Your task to perform on an android device: Open settings on Google Maps Image 0: 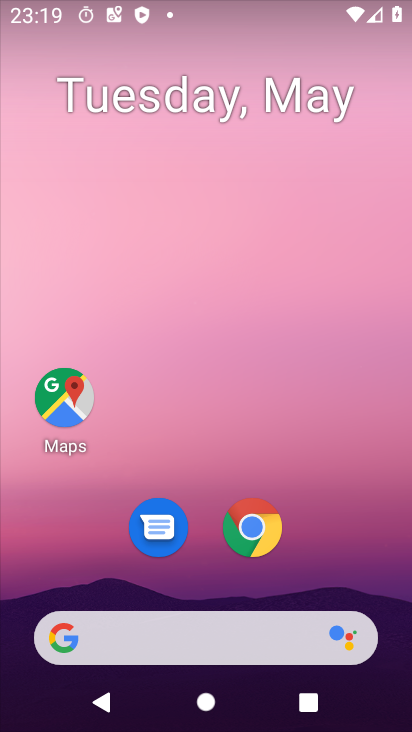
Step 0: click (240, 146)
Your task to perform on an android device: Open settings on Google Maps Image 1: 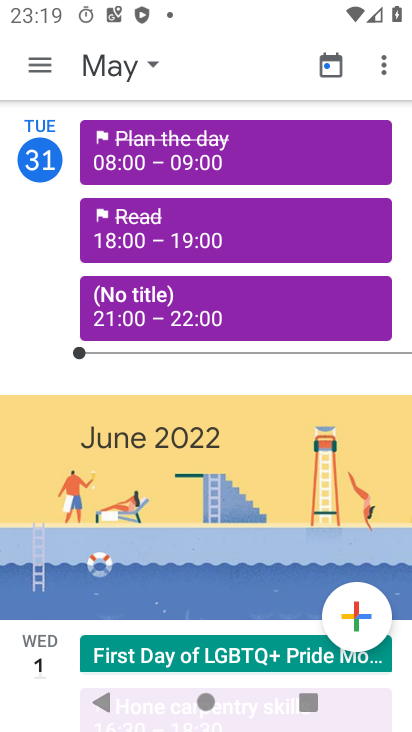
Step 1: drag from (191, 595) to (222, 274)
Your task to perform on an android device: Open settings on Google Maps Image 2: 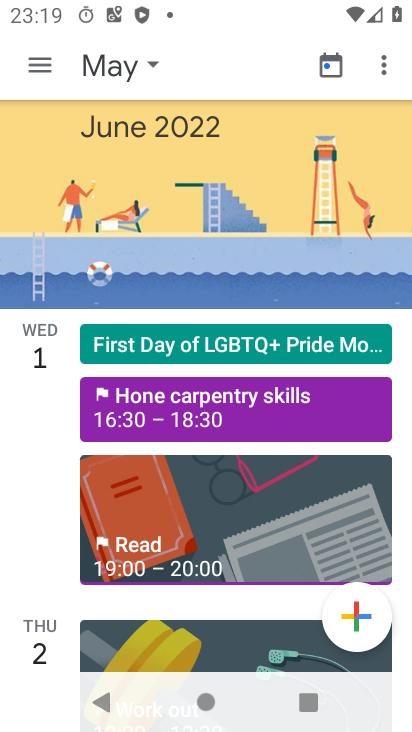
Step 2: press home button
Your task to perform on an android device: Open settings on Google Maps Image 3: 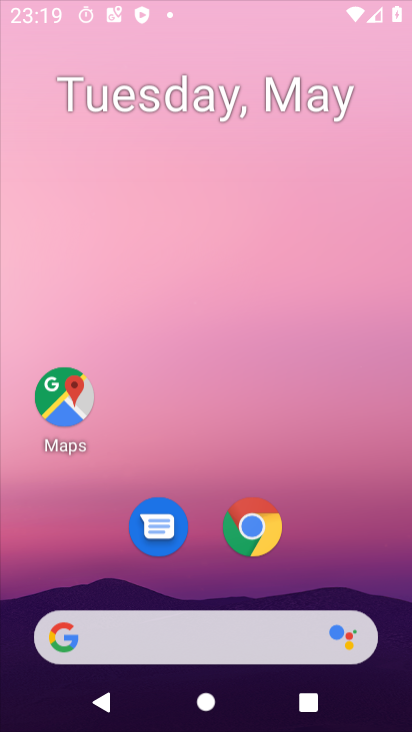
Step 3: drag from (237, 584) to (245, 128)
Your task to perform on an android device: Open settings on Google Maps Image 4: 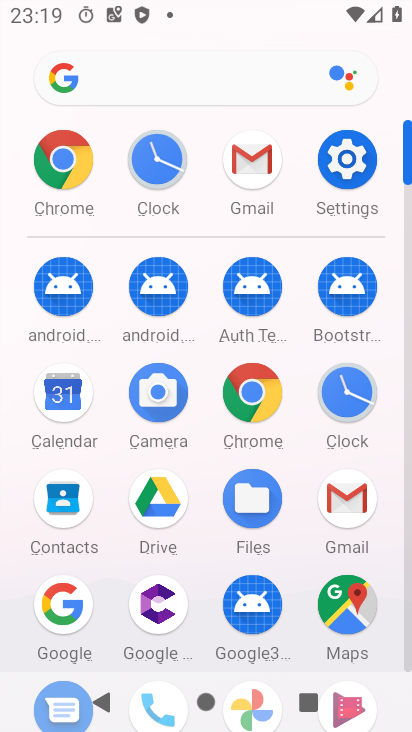
Step 4: click (344, 588)
Your task to perform on an android device: Open settings on Google Maps Image 5: 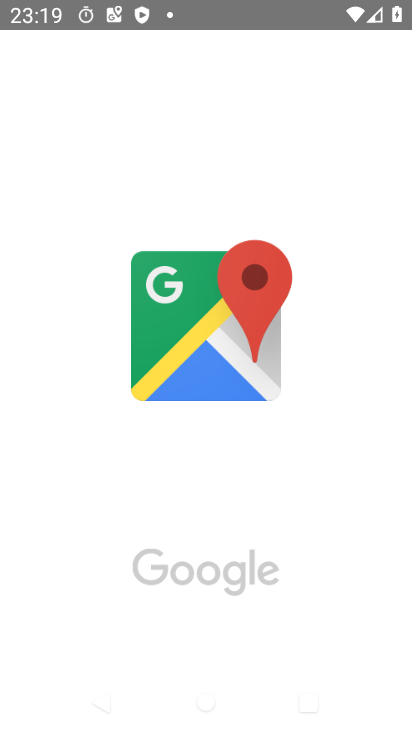
Step 5: drag from (181, 603) to (261, 255)
Your task to perform on an android device: Open settings on Google Maps Image 6: 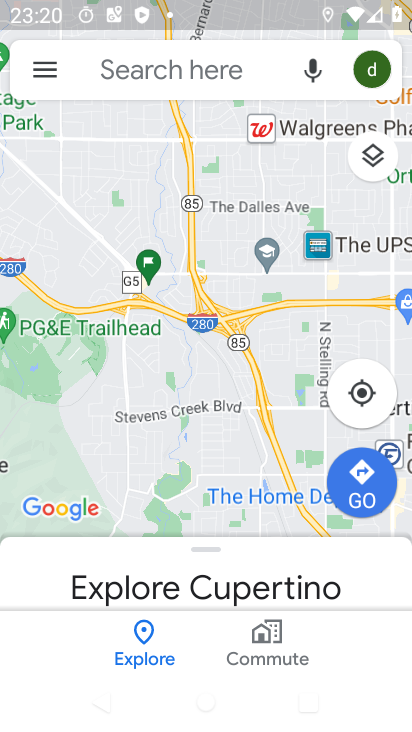
Step 6: drag from (215, 558) to (234, 81)
Your task to perform on an android device: Open settings on Google Maps Image 7: 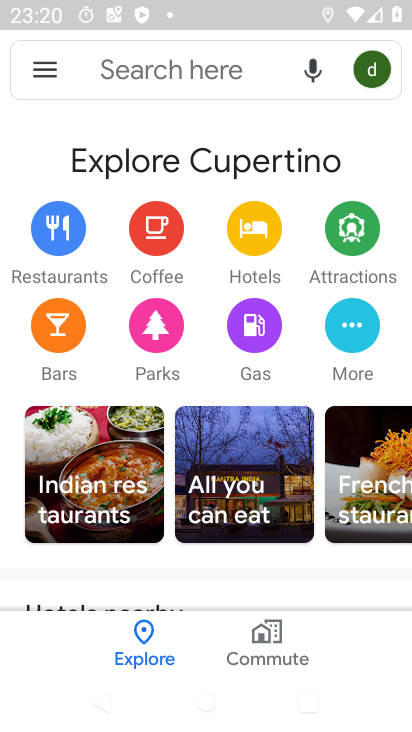
Step 7: drag from (241, 564) to (304, 170)
Your task to perform on an android device: Open settings on Google Maps Image 8: 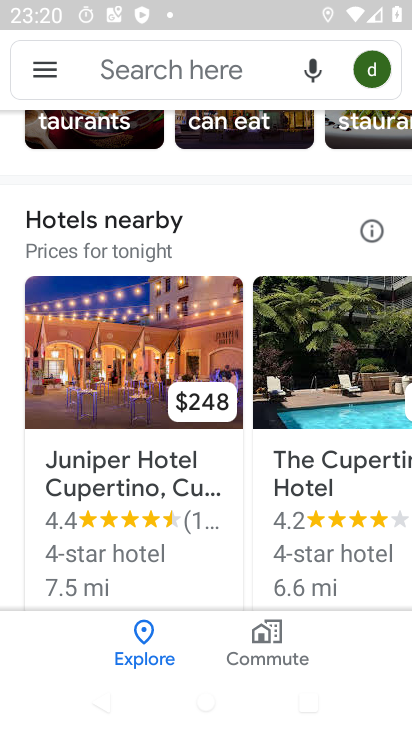
Step 8: drag from (246, 563) to (266, 197)
Your task to perform on an android device: Open settings on Google Maps Image 9: 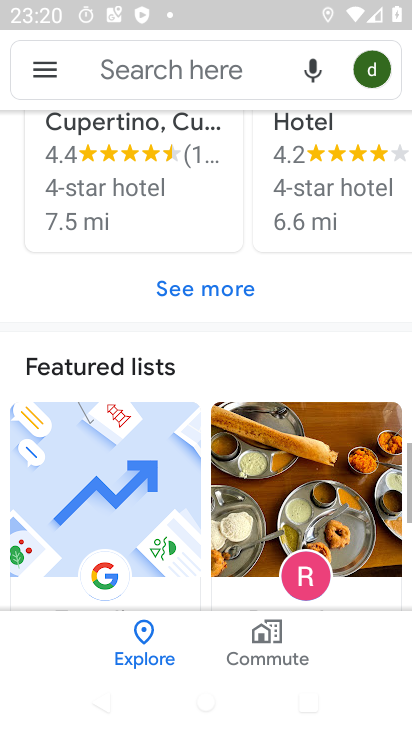
Step 9: drag from (243, 311) to (262, 196)
Your task to perform on an android device: Open settings on Google Maps Image 10: 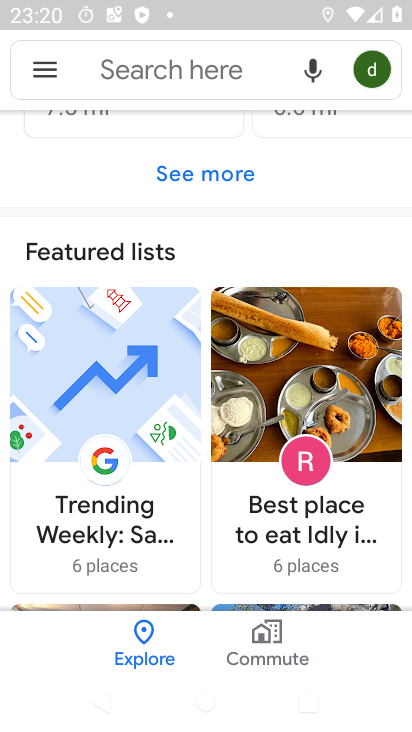
Step 10: drag from (244, 147) to (345, 592)
Your task to perform on an android device: Open settings on Google Maps Image 11: 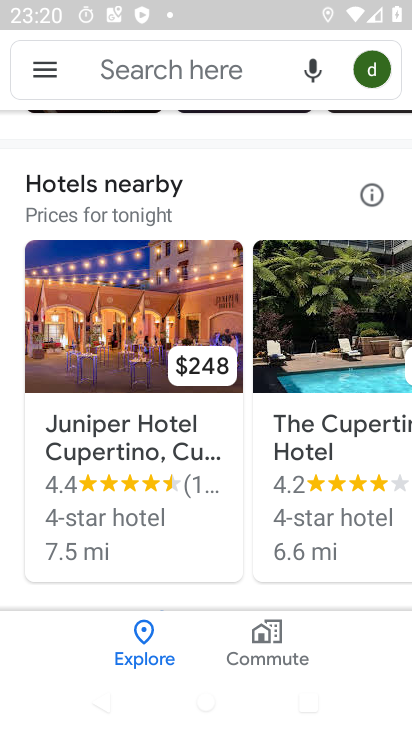
Step 11: click (56, 67)
Your task to perform on an android device: Open settings on Google Maps Image 12: 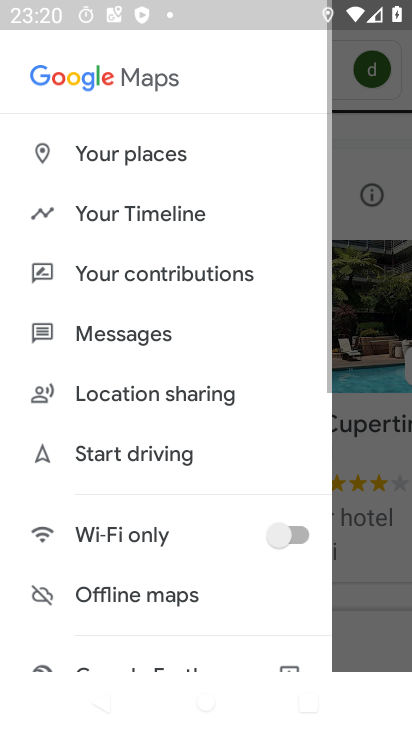
Step 12: drag from (163, 518) to (238, 98)
Your task to perform on an android device: Open settings on Google Maps Image 13: 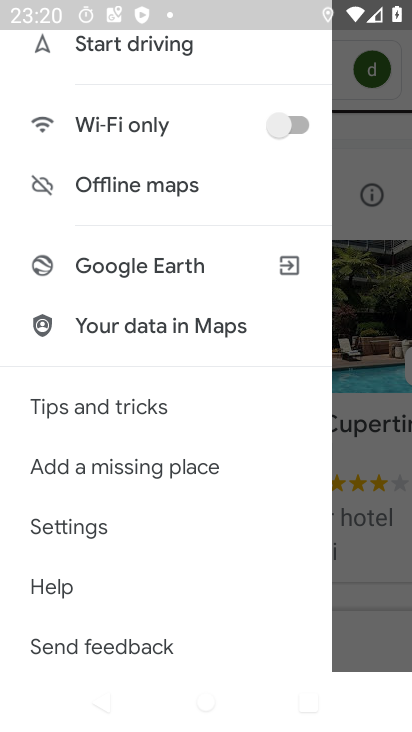
Step 13: click (85, 524)
Your task to perform on an android device: Open settings on Google Maps Image 14: 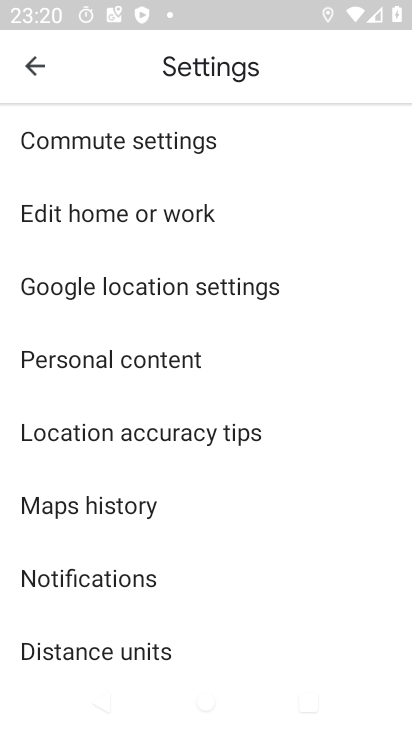
Step 14: task complete